Your task to perform on an android device: Turn off the flashlight Image 0: 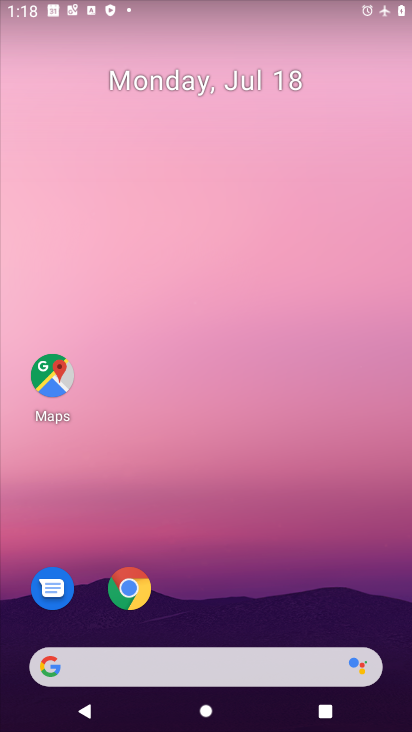
Step 0: drag from (199, 623) to (253, 49)
Your task to perform on an android device: Turn off the flashlight Image 1: 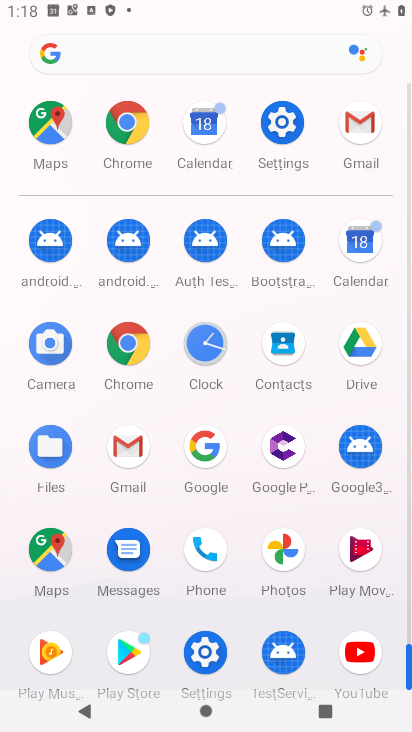
Step 1: task complete